Your task to perform on an android device: What's on my calendar today? Image 0: 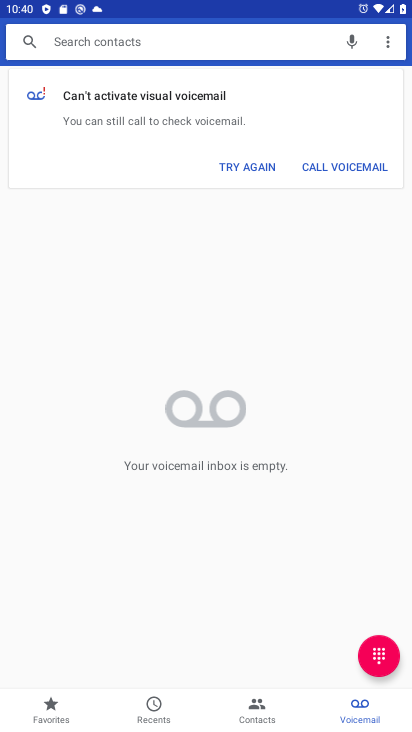
Step 0: press home button
Your task to perform on an android device: What's on my calendar today? Image 1: 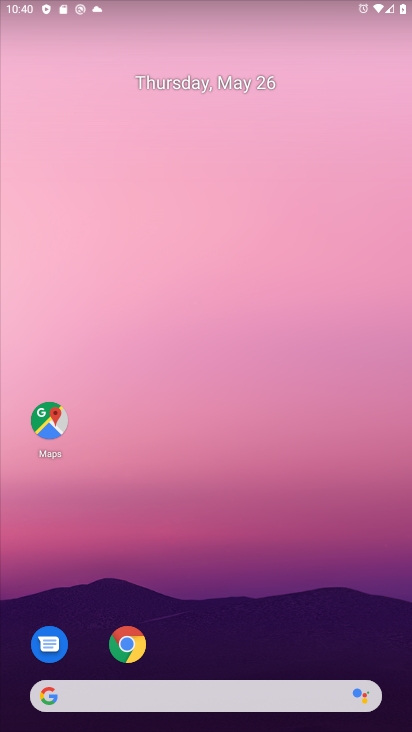
Step 1: drag from (235, 642) to (218, 162)
Your task to perform on an android device: What's on my calendar today? Image 2: 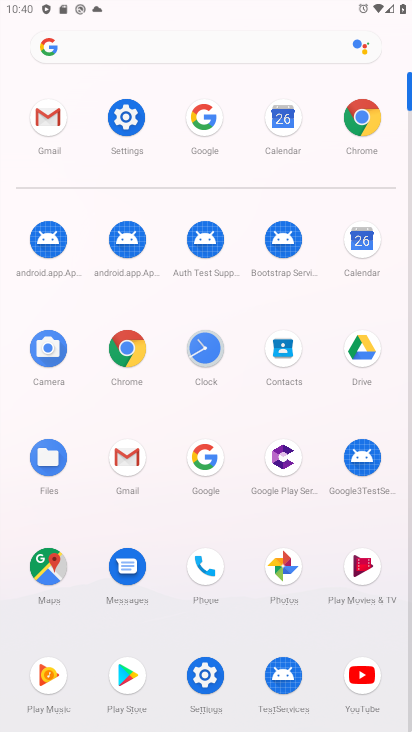
Step 2: click (268, 127)
Your task to perform on an android device: What's on my calendar today? Image 3: 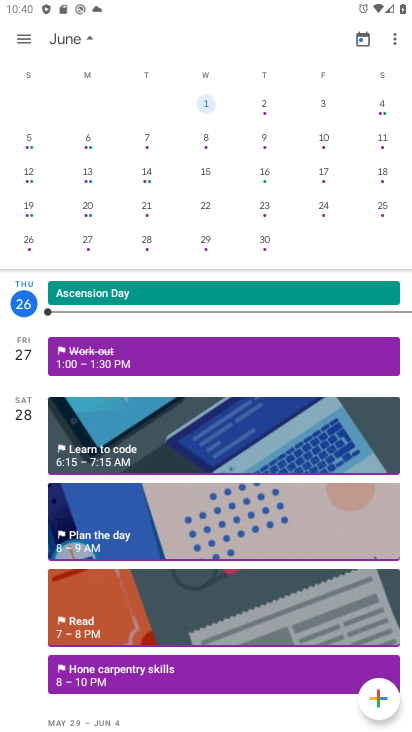
Step 3: drag from (58, 181) to (341, 177)
Your task to perform on an android device: What's on my calendar today? Image 4: 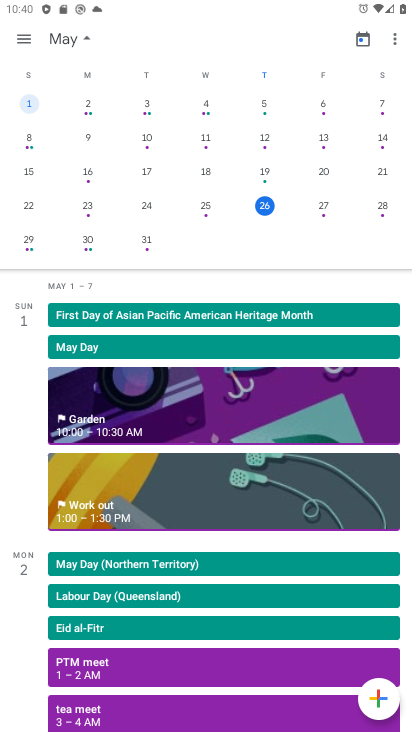
Step 4: click (261, 202)
Your task to perform on an android device: What's on my calendar today? Image 5: 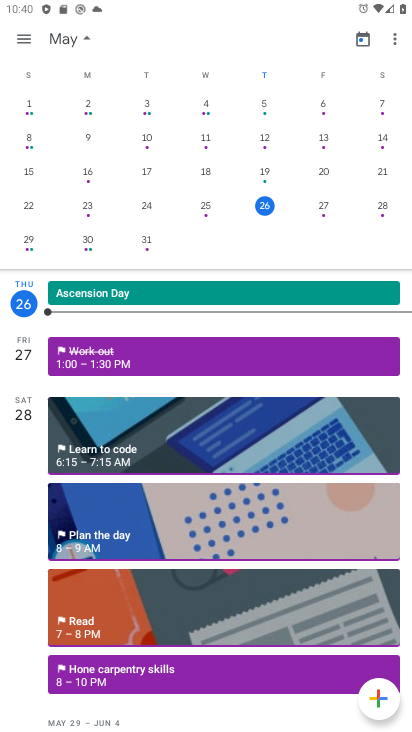
Step 5: task complete